Your task to perform on an android device: open wifi settings Image 0: 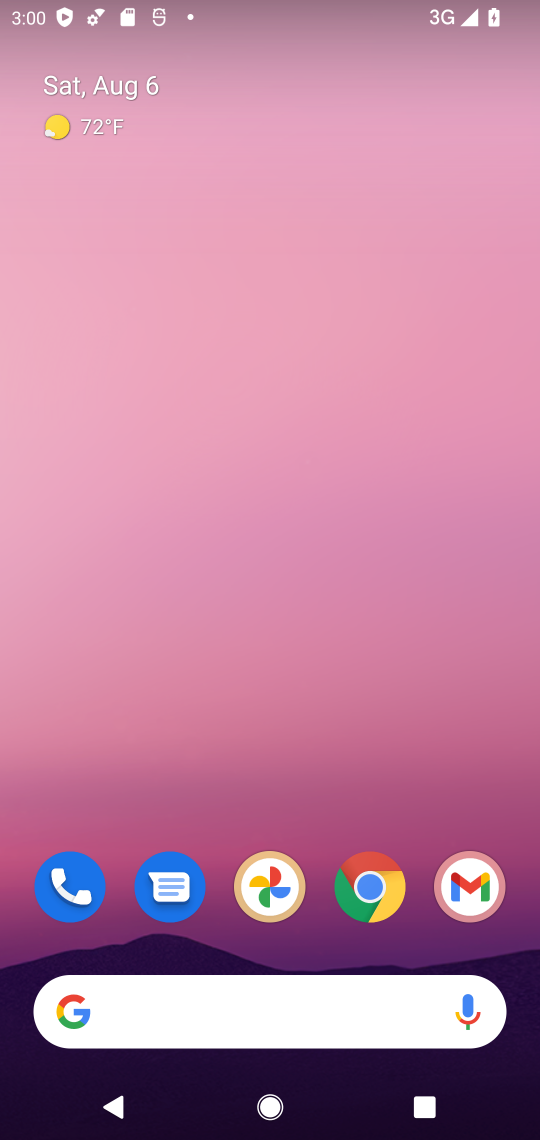
Step 0: press home button
Your task to perform on an android device: open wifi settings Image 1: 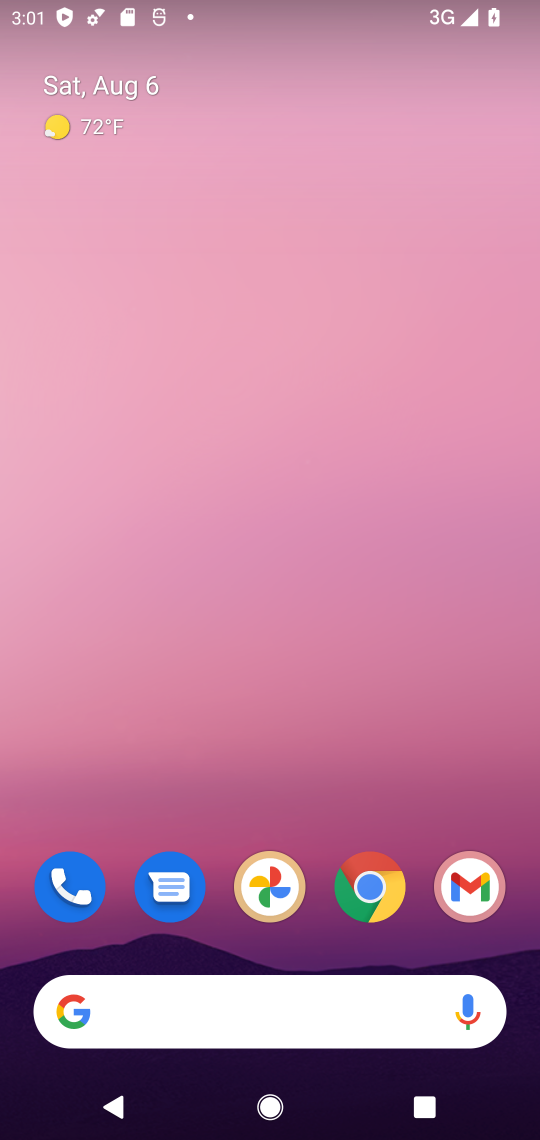
Step 1: drag from (310, 779) to (352, 234)
Your task to perform on an android device: open wifi settings Image 2: 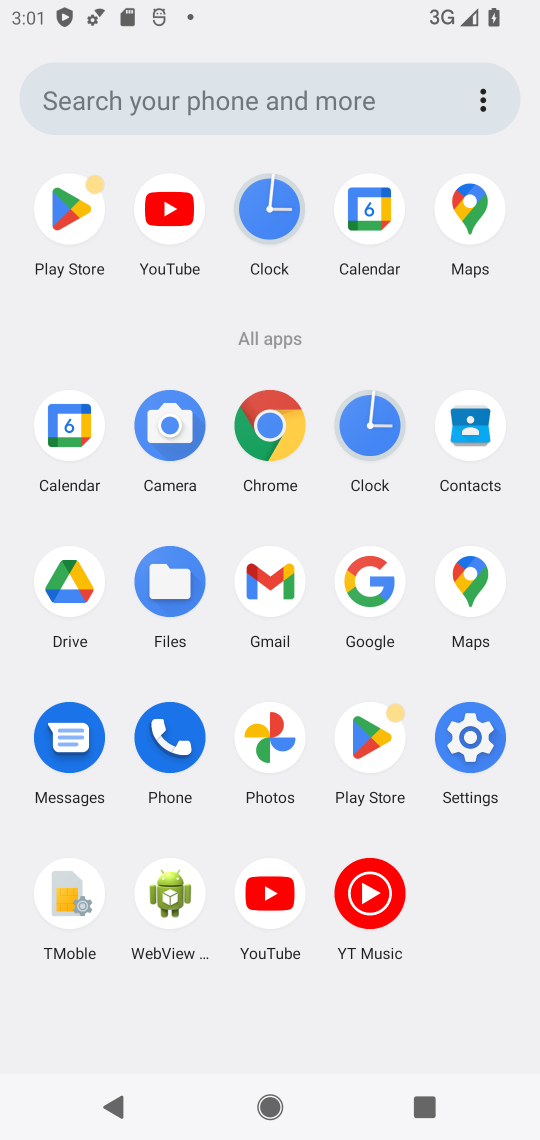
Step 2: click (478, 731)
Your task to perform on an android device: open wifi settings Image 3: 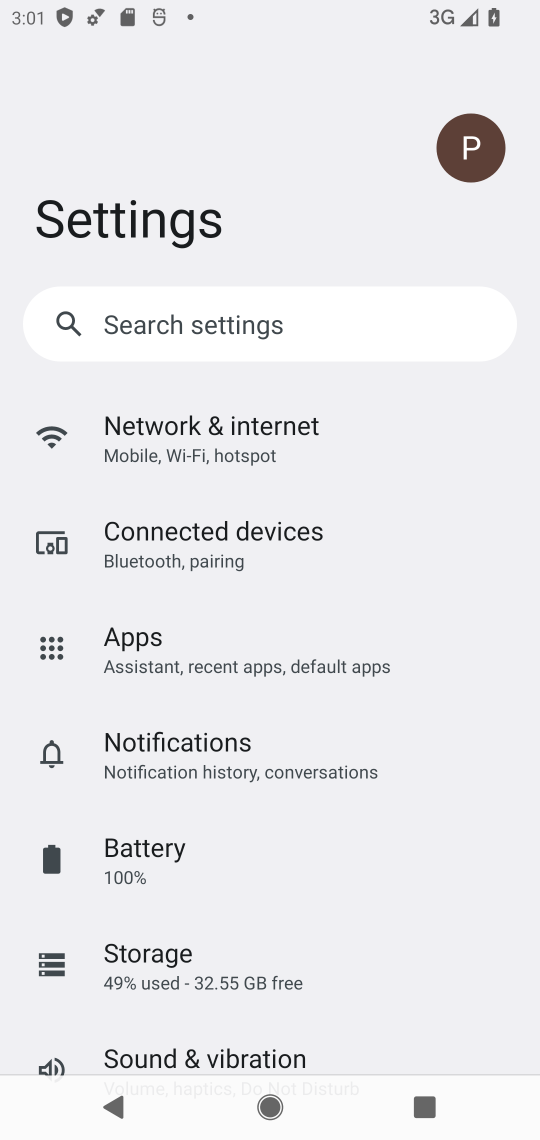
Step 3: drag from (397, 917) to (422, 754)
Your task to perform on an android device: open wifi settings Image 4: 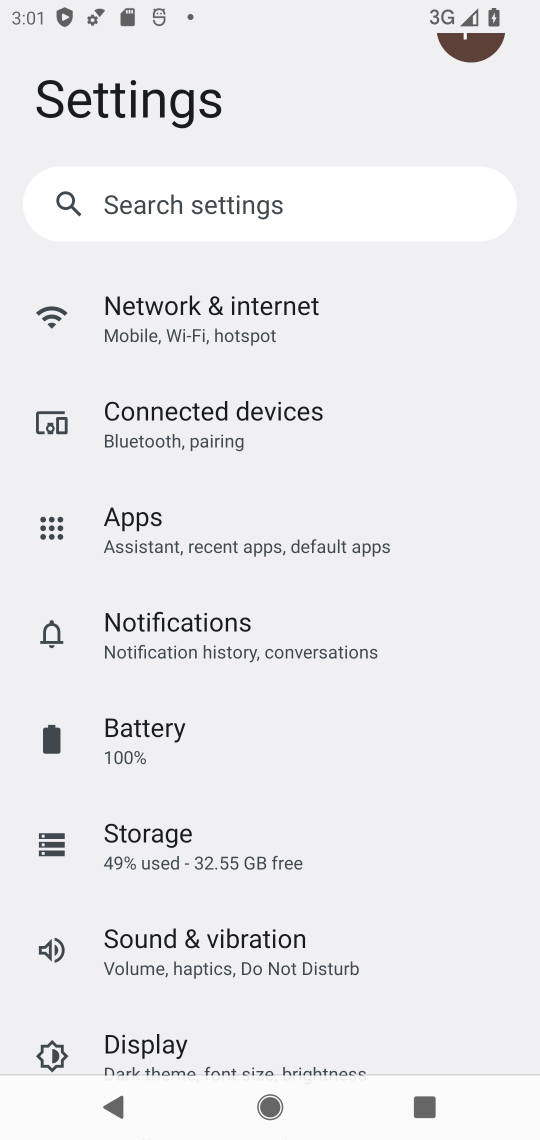
Step 4: drag from (477, 880) to (492, 721)
Your task to perform on an android device: open wifi settings Image 5: 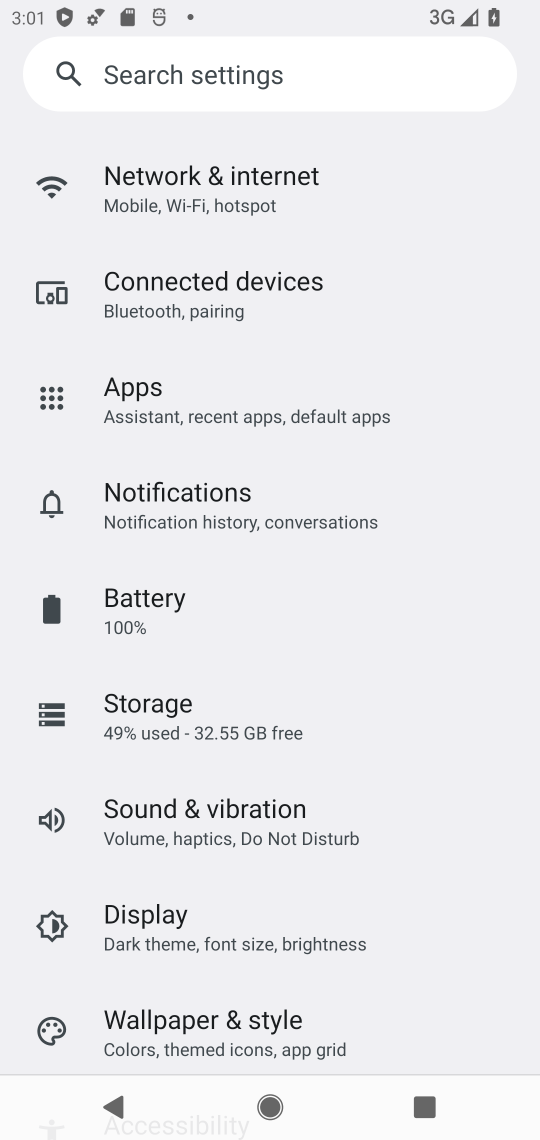
Step 5: drag from (470, 799) to (468, 620)
Your task to perform on an android device: open wifi settings Image 6: 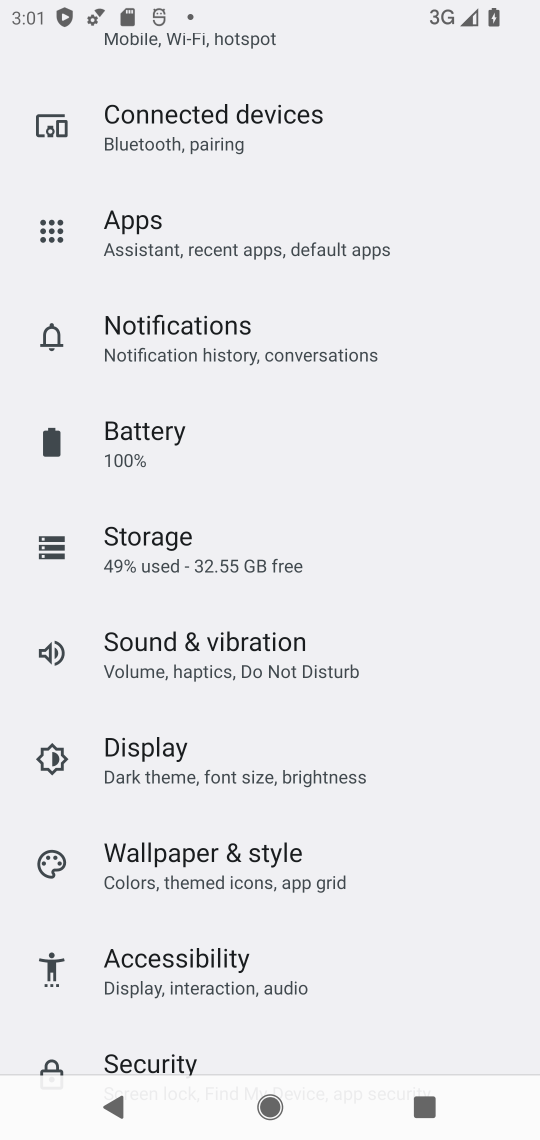
Step 6: drag from (458, 868) to (457, 658)
Your task to perform on an android device: open wifi settings Image 7: 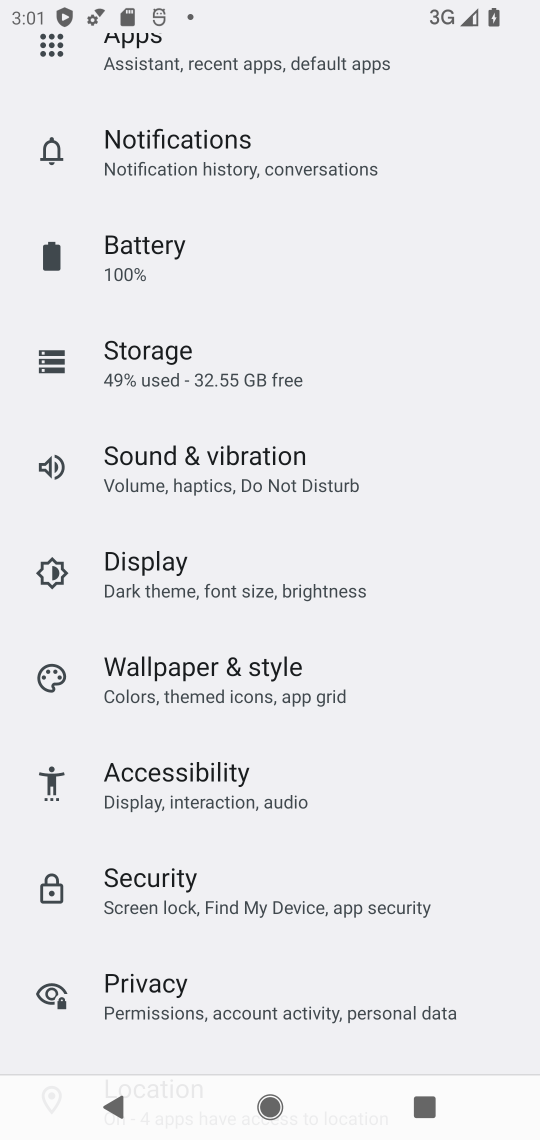
Step 7: drag from (476, 876) to (474, 657)
Your task to perform on an android device: open wifi settings Image 8: 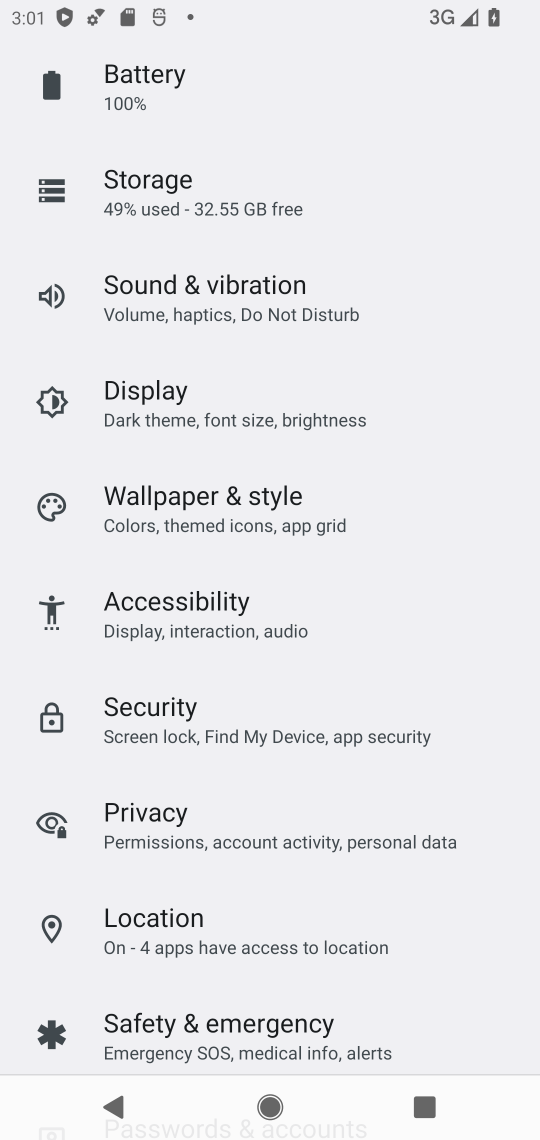
Step 8: drag from (474, 906) to (477, 684)
Your task to perform on an android device: open wifi settings Image 9: 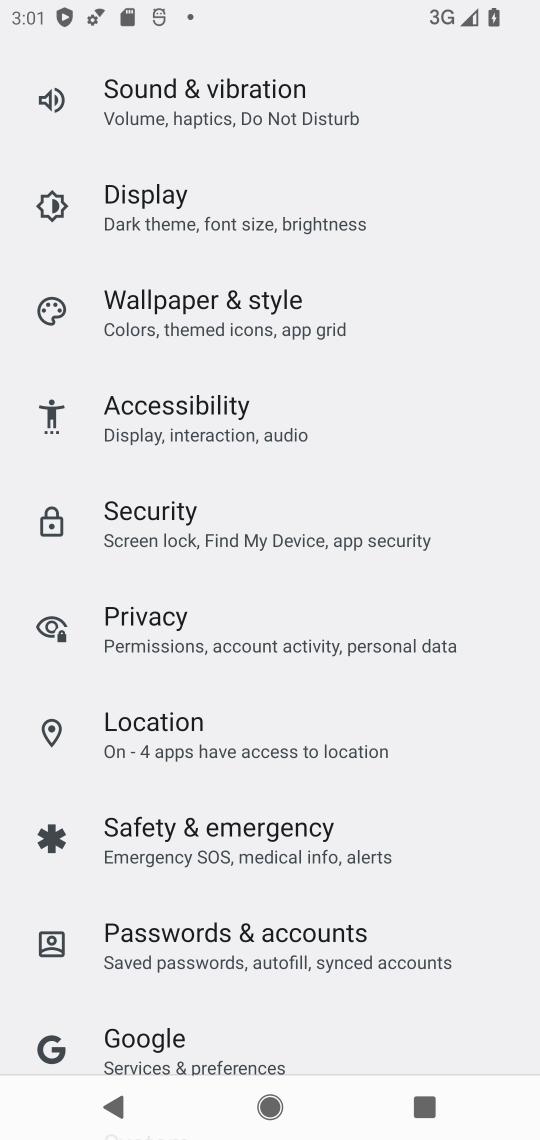
Step 9: drag from (497, 754) to (502, 494)
Your task to perform on an android device: open wifi settings Image 10: 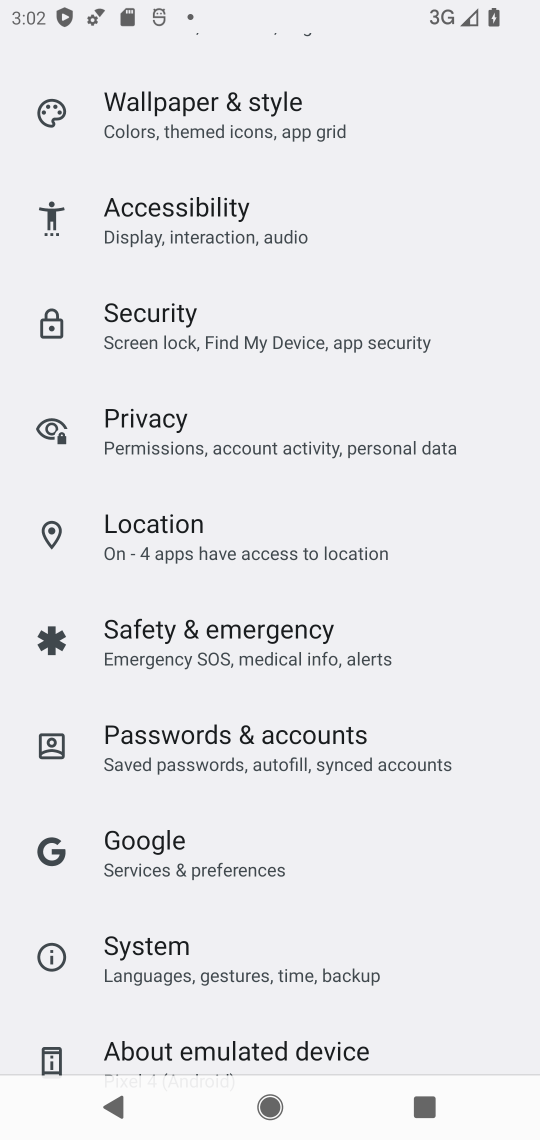
Step 10: drag from (486, 321) to (472, 510)
Your task to perform on an android device: open wifi settings Image 11: 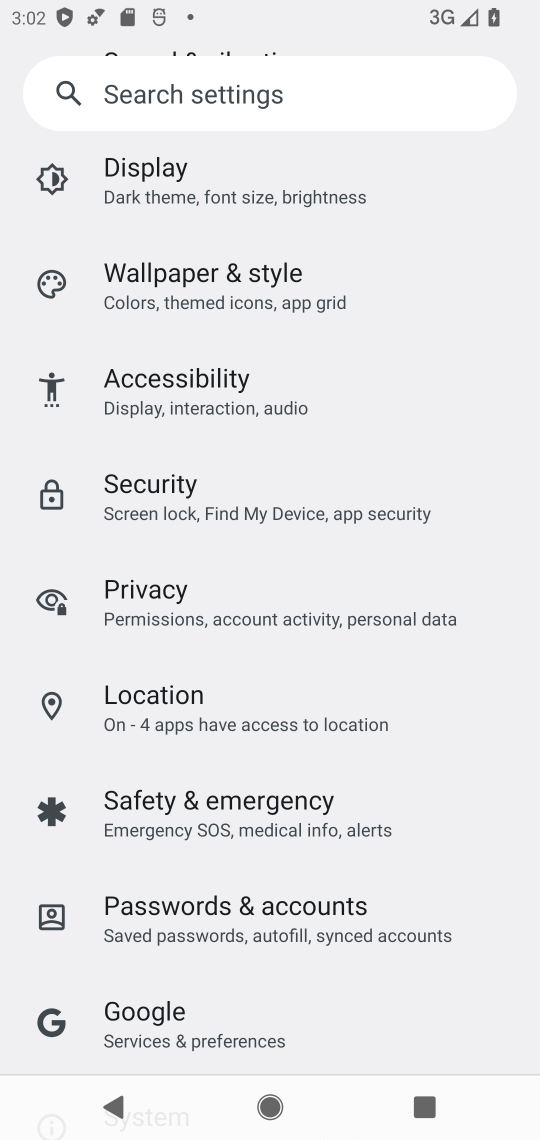
Step 11: drag from (479, 286) to (476, 496)
Your task to perform on an android device: open wifi settings Image 12: 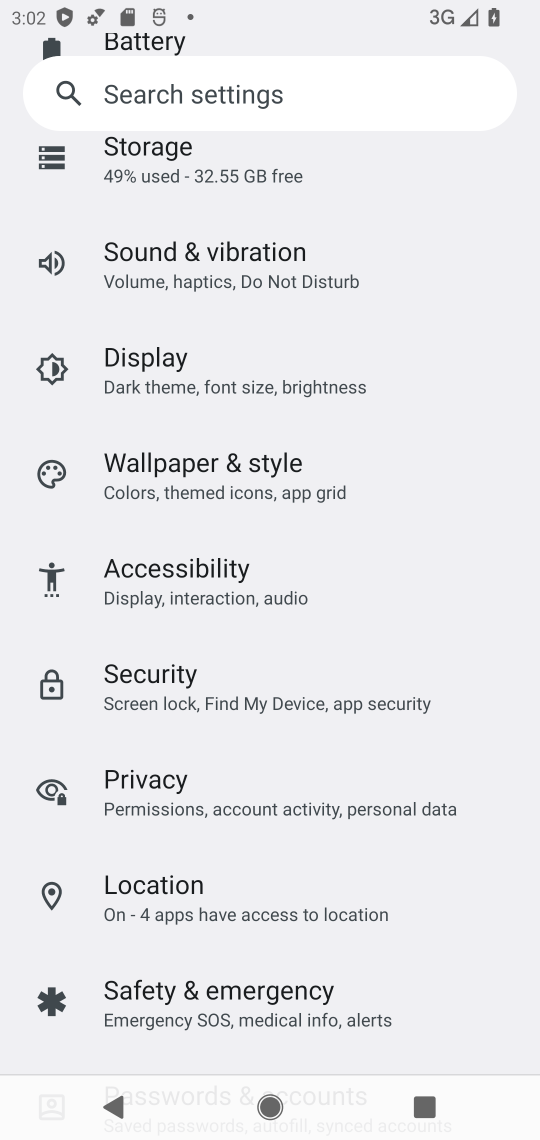
Step 12: drag from (451, 243) to (467, 541)
Your task to perform on an android device: open wifi settings Image 13: 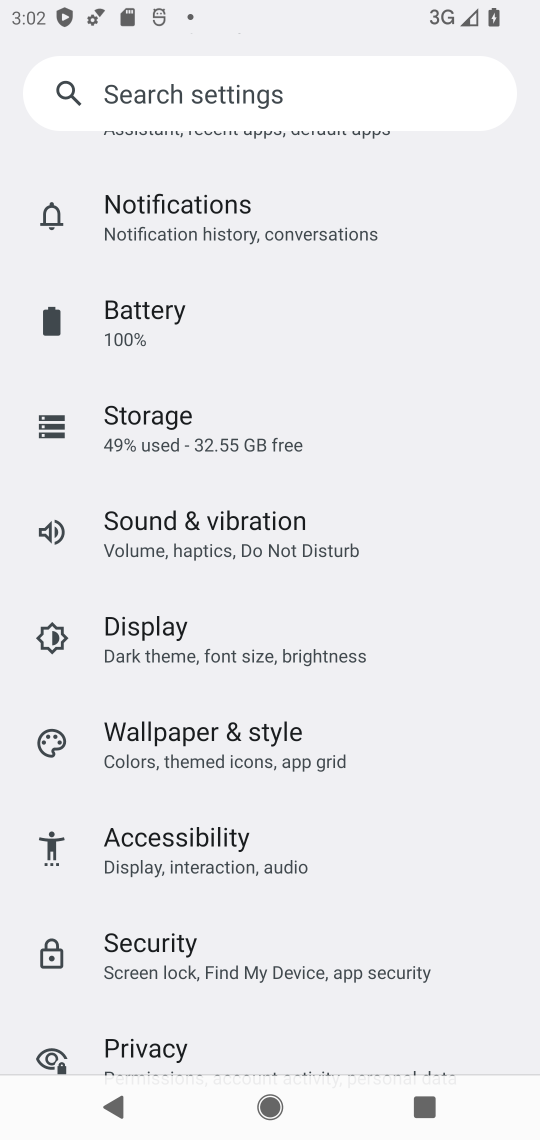
Step 13: drag from (457, 250) to (467, 645)
Your task to perform on an android device: open wifi settings Image 14: 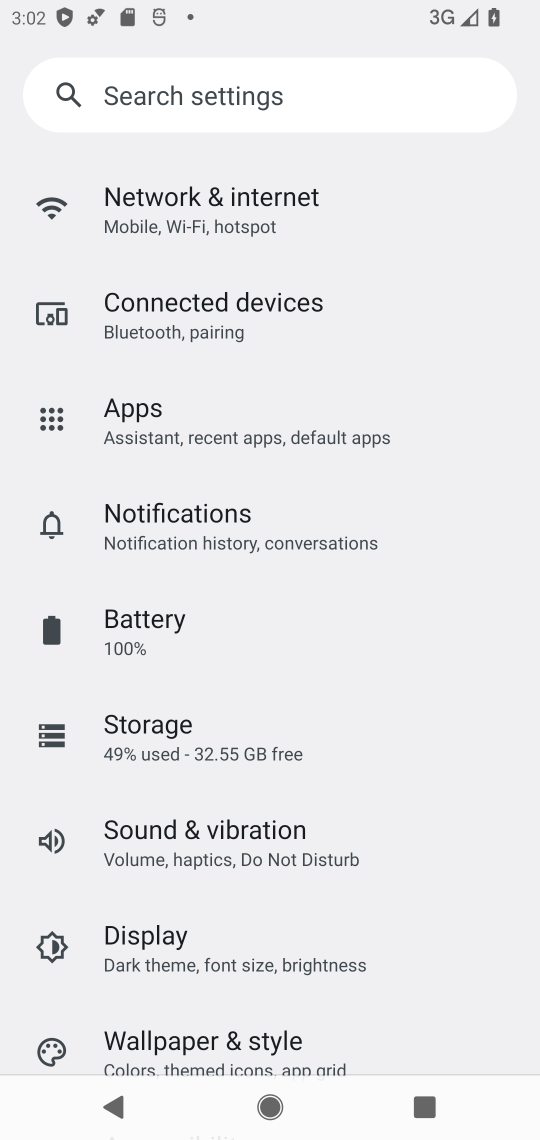
Step 14: click (287, 210)
Your task to perform on an android device: open wifi settings Image 15: 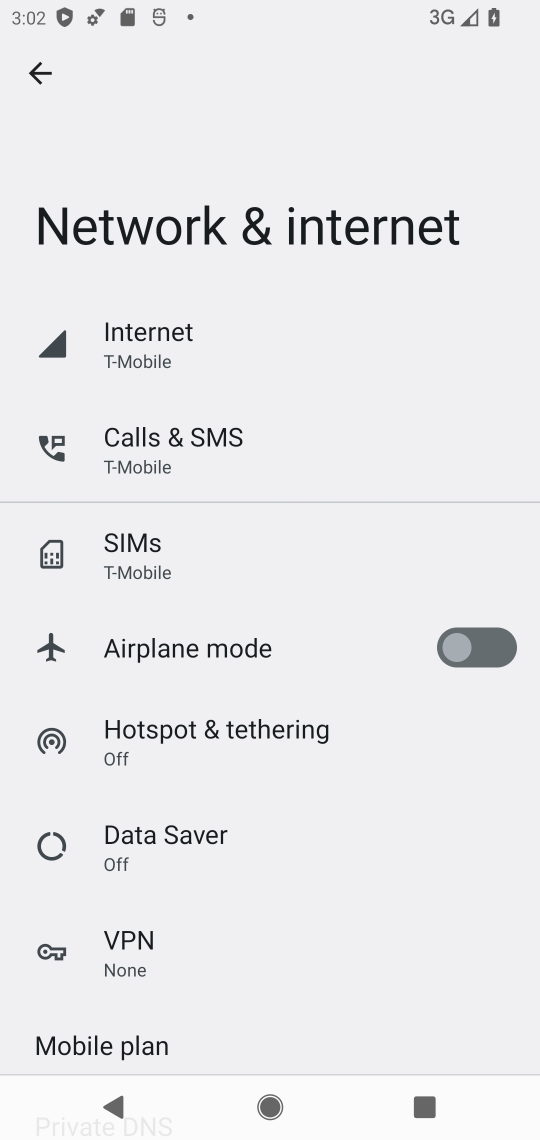
Step 15: click (226, 362)
Your task to perform on an android device: open wifi settings Image 16: 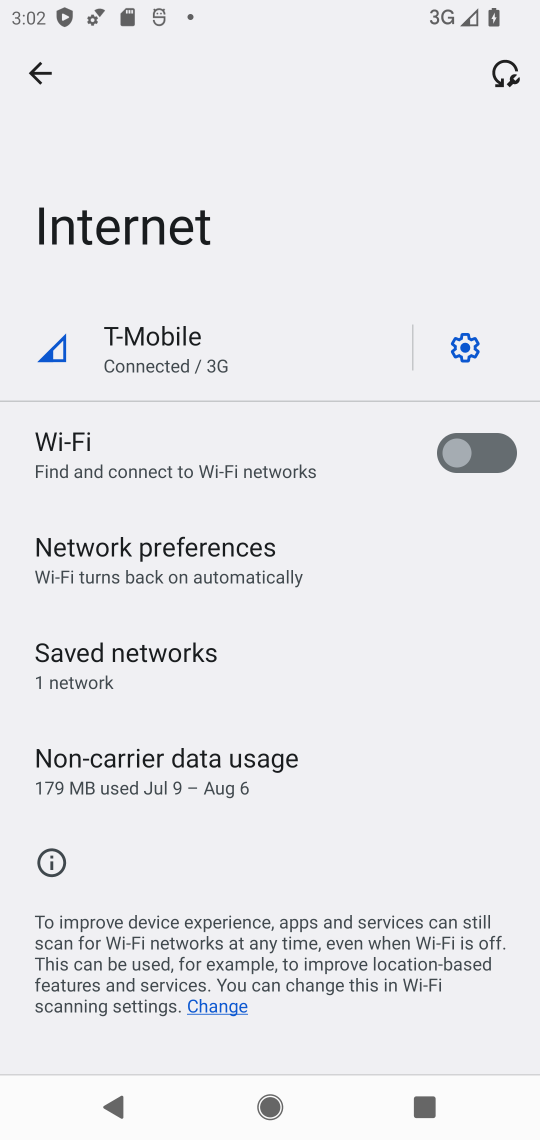
Step 16: task complete